Your task to perform on an android device: turn off notifications settings in the gmail app Image 0: 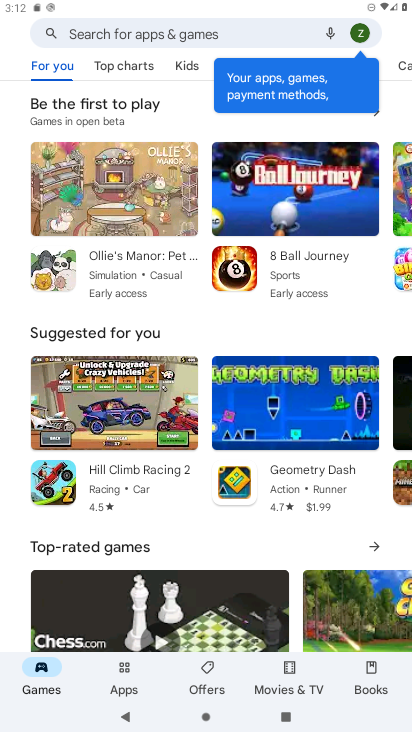
Step 0: press home button
Your task to perform on an android device: turn off notifications settings in the gmail app Image 1: 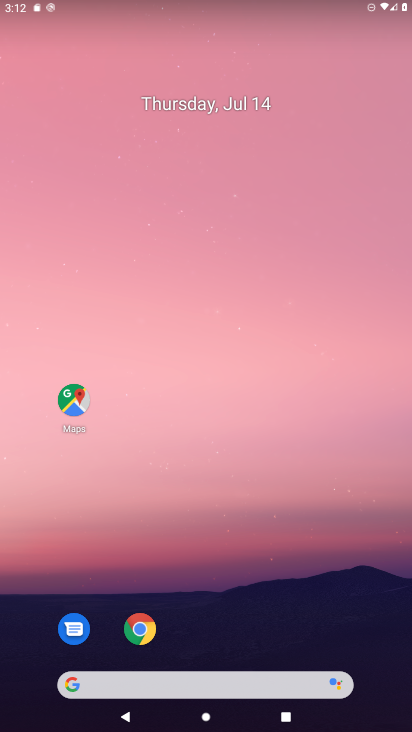
Step 1: drag from (224, 653) to (235, 74)
Your task to perform on an android device: turn off notifications settings in the gmail app Image 2: 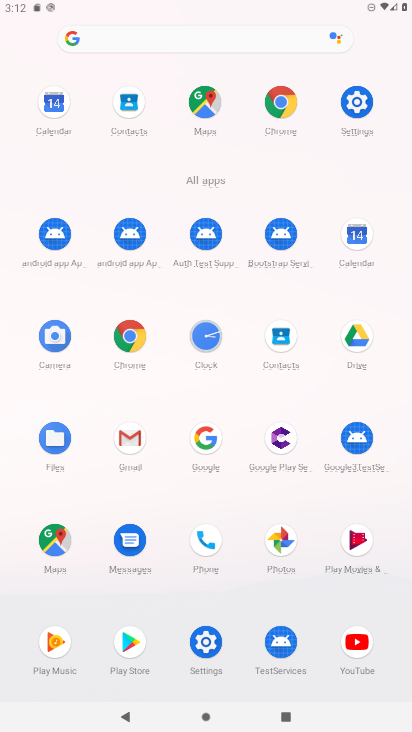
Step 2: click (128, 432)
Your task to perform on an android device: turn off notifications settings in the gmail app Image 3: 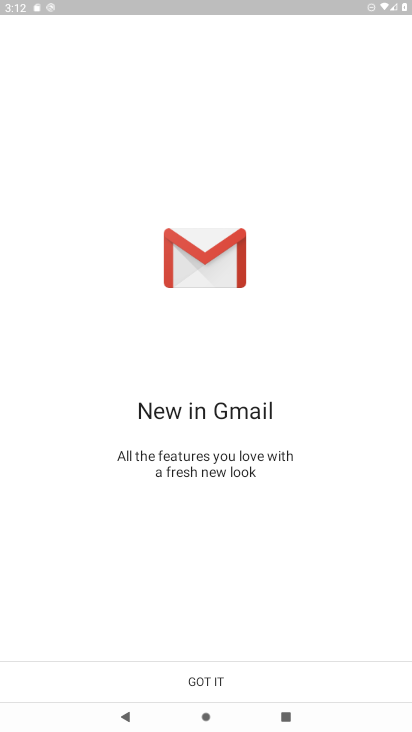
Step 3: click (208, 683)
Your task to perform on an android device: turn off notifications settings in the gmail app Image 4: 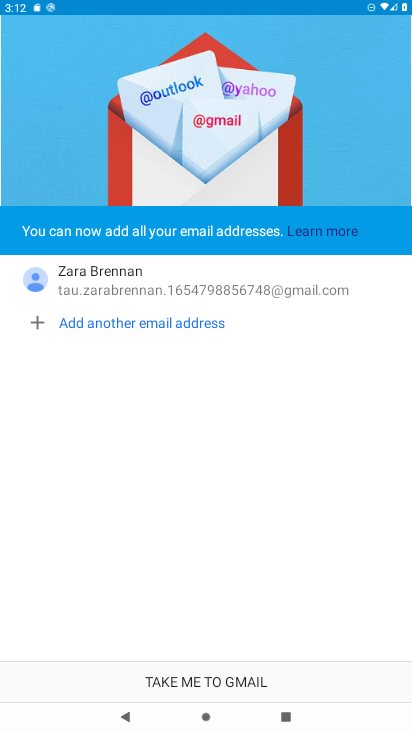
Step 4: click (221, 689)
Your task to perform on an android device: turn off notifications settings in the gmail app Image 5: 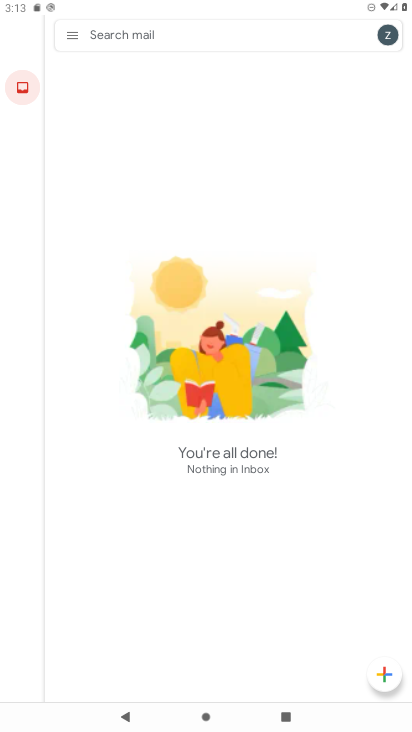
Step 5: click (70, 30)
Your task to perform on an android device: turn off notifications settings in the gmail app Image 6: 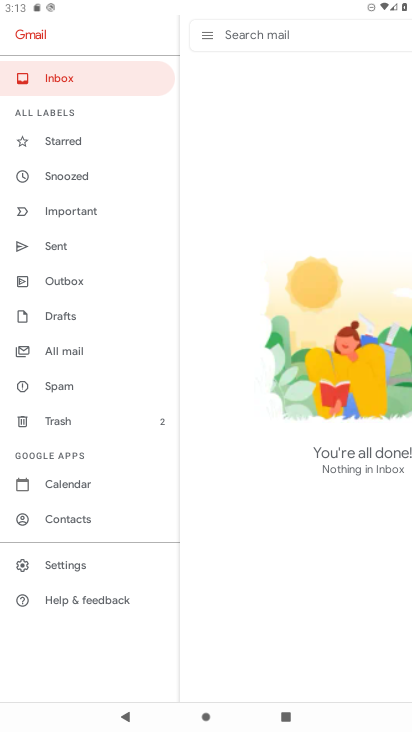
Step 6: click (94, 560)
Your task to perform on an android device: turn off notifications settings in the gmail app Image 7: 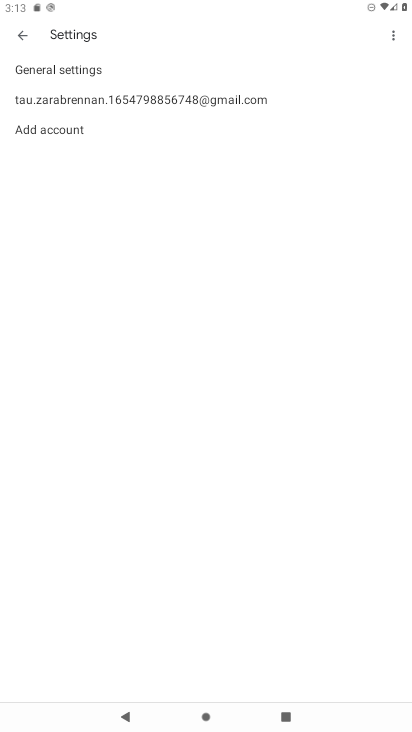
Step 7: click (108, 67)
Your task to perform on an android device: turn off notifications settings in the gmail app Image 8: 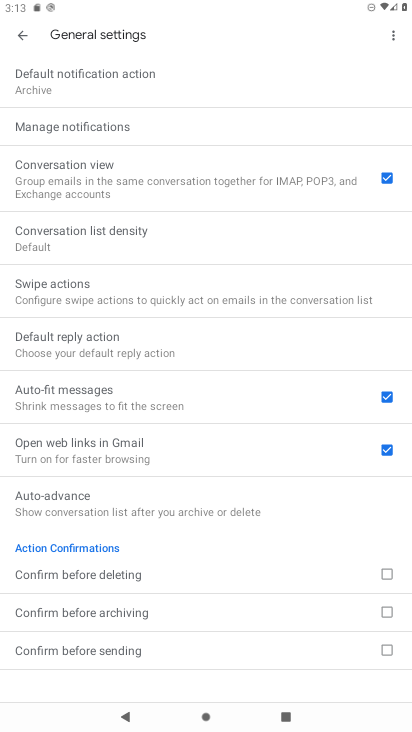
Step 8: click (136, 123)
Your task to perform on an android device: turn off notifications settings in the gmail app Image 9: 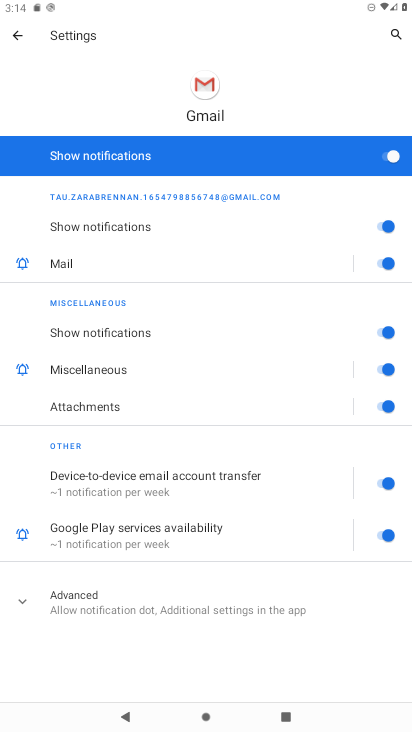
Step 9: click (385, 156)
Your task to perform on an android device: turn off notifications settings in the gmail app Image 10: 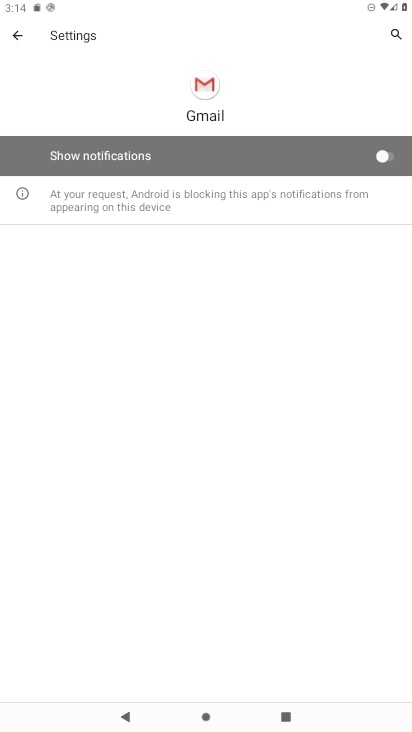
Step 10: task complete